Your task to perform on an android device: create a new album in the google photos Image 0: 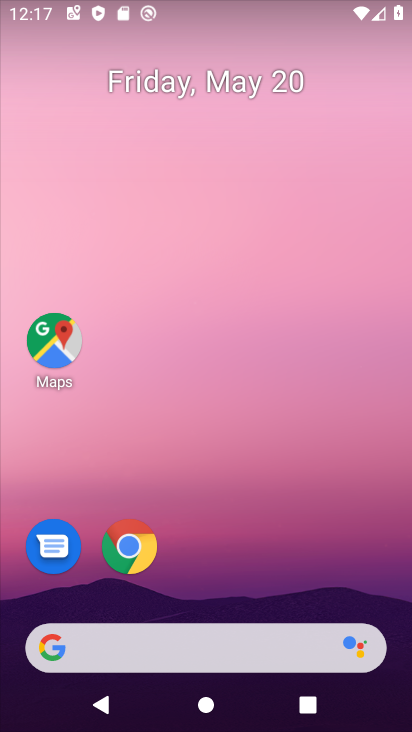
Step 0: drag from (267, 525) to (255, 69)
Your task to perform on an android device: create a new album in the google photos Image 1: 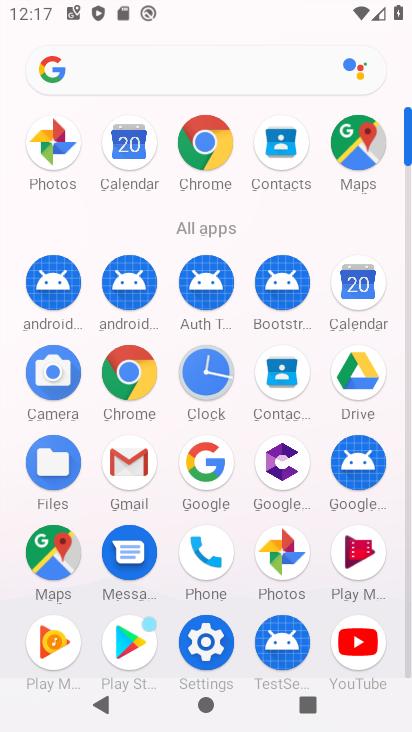
Step 1: click (48, 130)
Your task to perform on an android device: create a new album in the google photos Image 2: 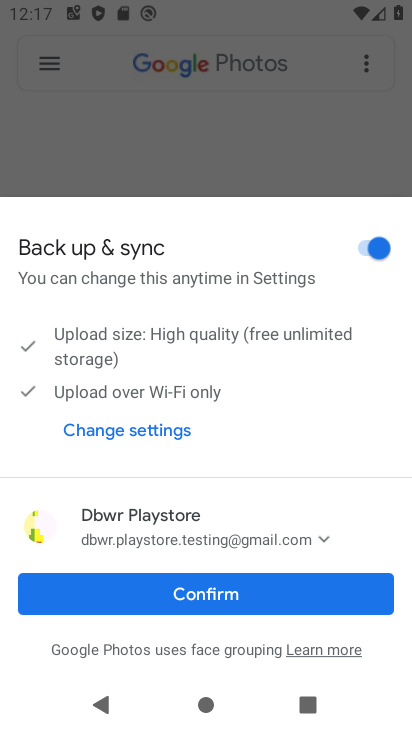
Step 2: click (208, 591)
Your task to perform on an android device: create a new album in the google photos Image 3: 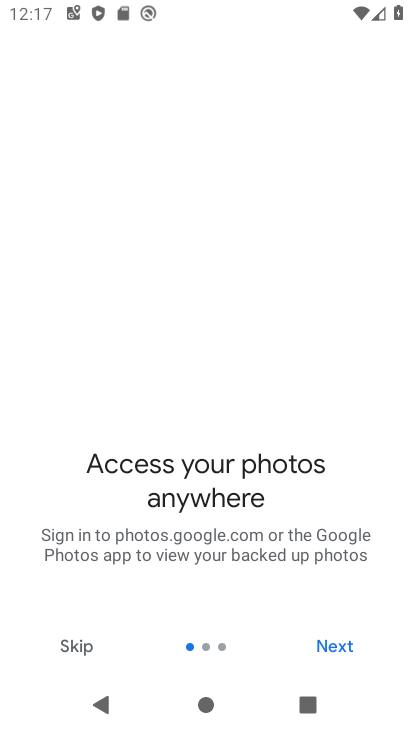
Step 3: click (159, 653)
Your task to perform on an android device: create a new album in the google photos Image 4: 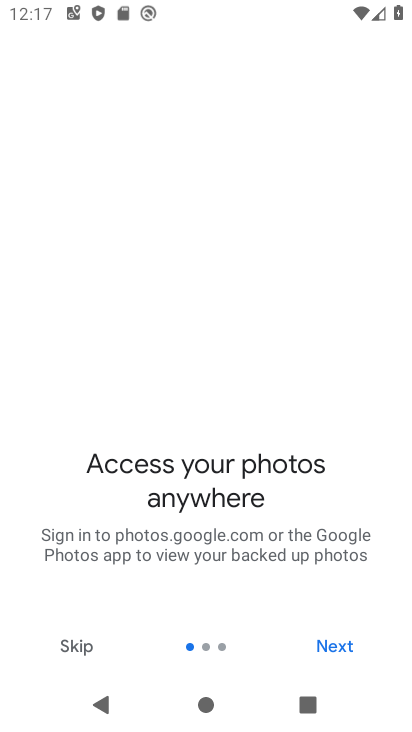
Step 4: click (339, 645)
Your task to perform on an android device: create a new album in the google photos Image 5: 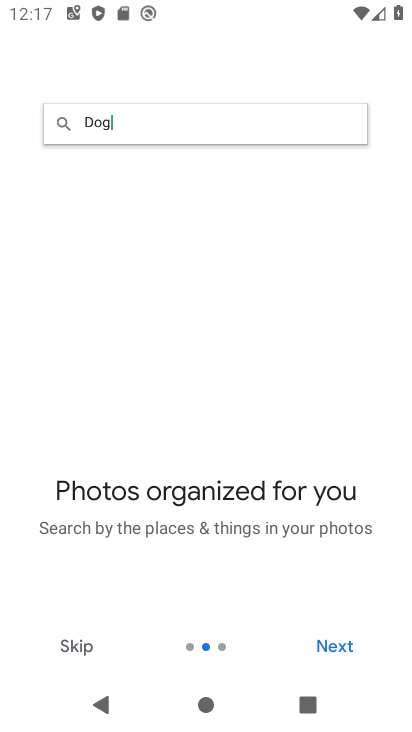
Step 5: click (339, 645)
Your task to perform on an android device: create a new album in the google photos Image 6: 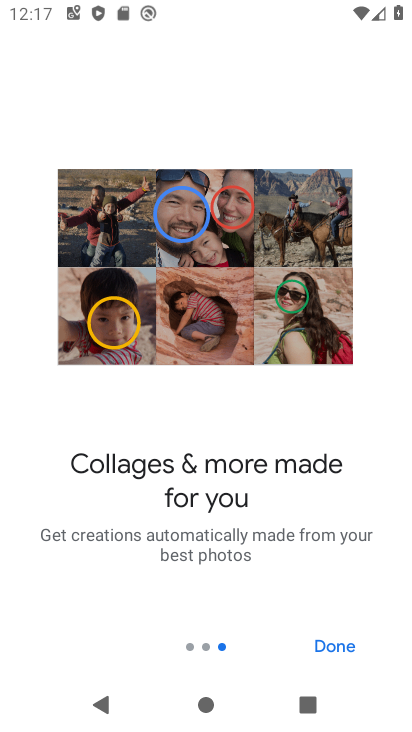
Step 6: click (339, 643)
Your task to perform on an android device: create a new album in the google photos Image 7: 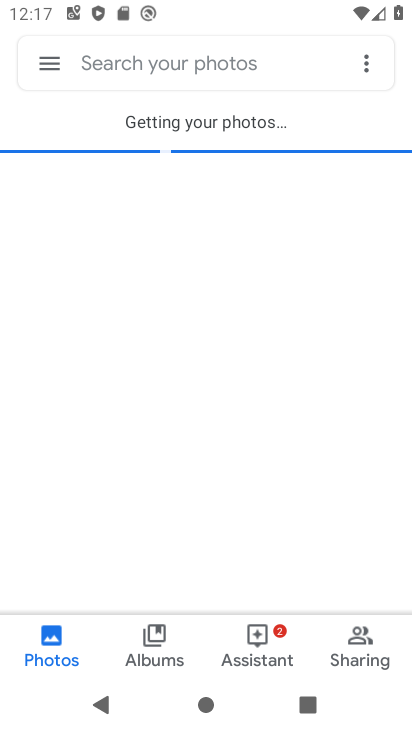
Step 7: click (155, 636)
Your task to perform on an android device: create a new album in the google photos Image 8: 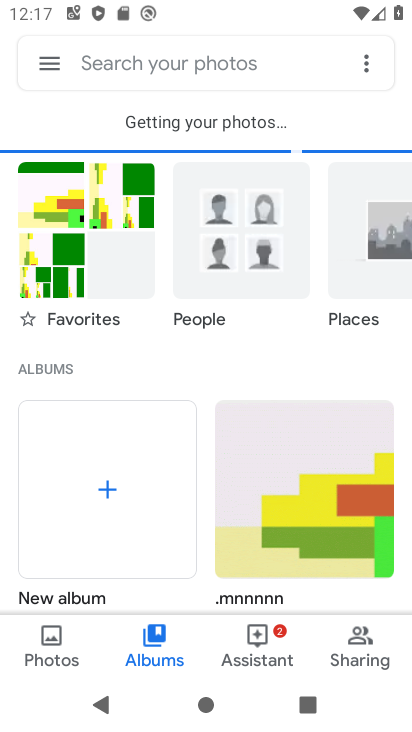
Step 8: click (105, 485)
Your task to perform on an android device: create a new album in the google photos Image 9: 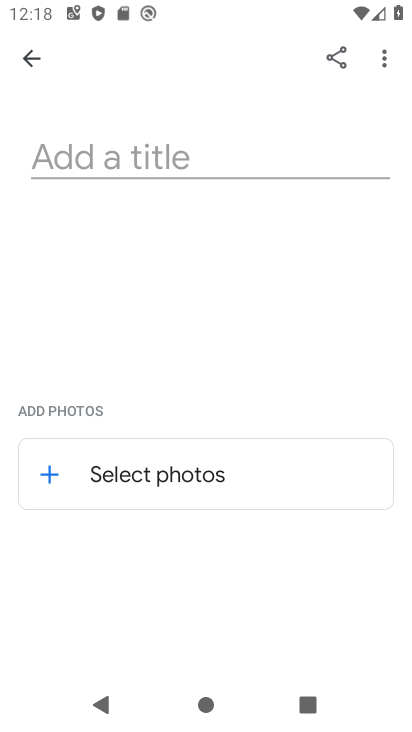
Step 9: click (135, 142)
Your task to perform on an android device: create a new album in the google photos Image 10: 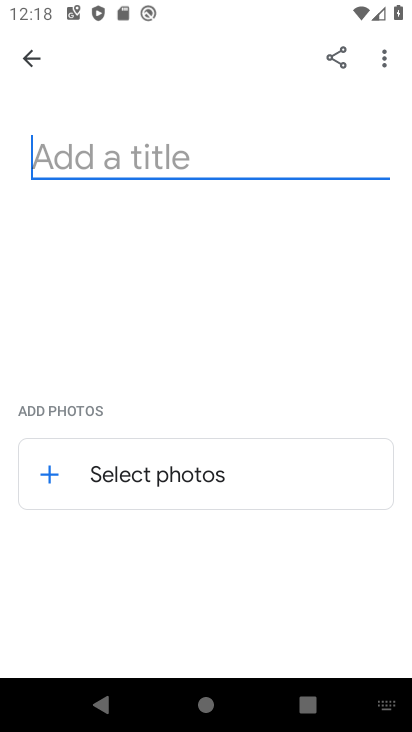
Step 10: type "Madurai Temple"
Your task to perform on an android device: create a new album in the google photos Image 11: 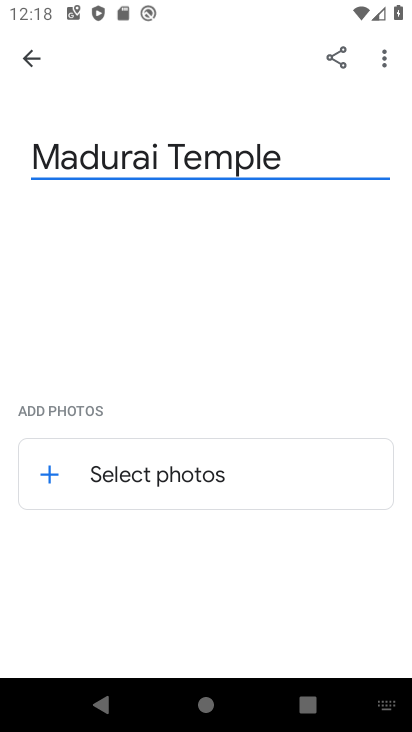
Step 11: click (48, 469)
Your task to perform on an android device: create a new album in the google photos Image 12: 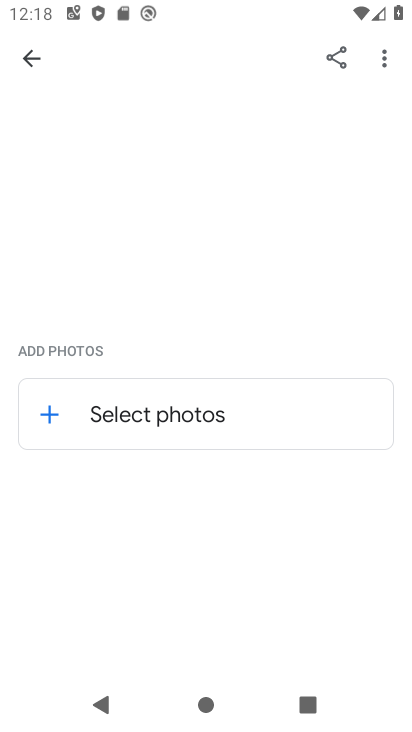
Step 12: click (51, 410)
Your task to perform on an android device: create a new album in the google photos Image 13: 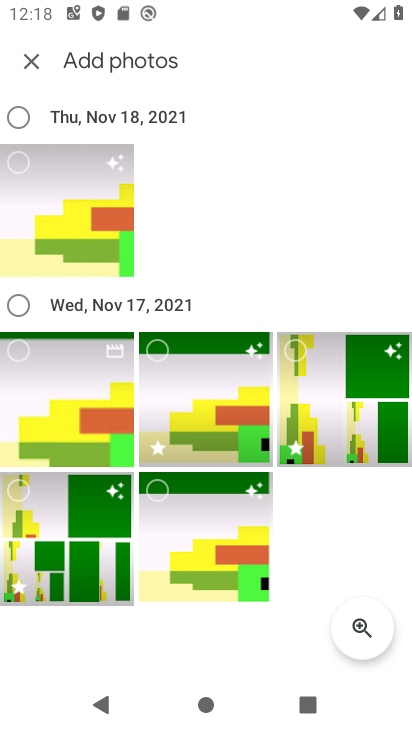
Step 13: click (158, 484)
Your task to perform on an android device: create a new album in the google photos Image 14: 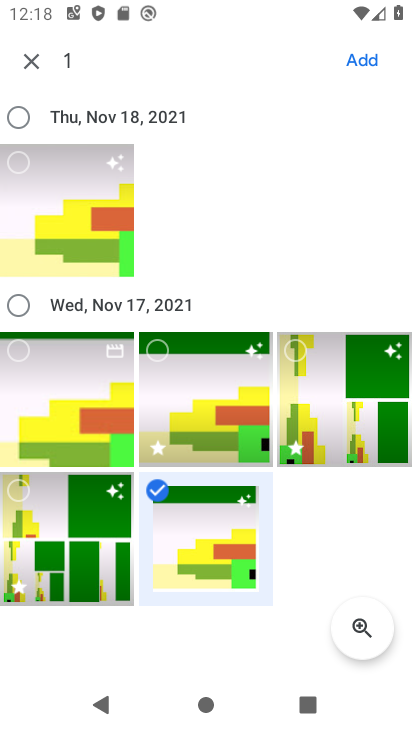
Step 14: click (356, 56)
Your task to perform on an android device: create a new album in the google photos Image 15: 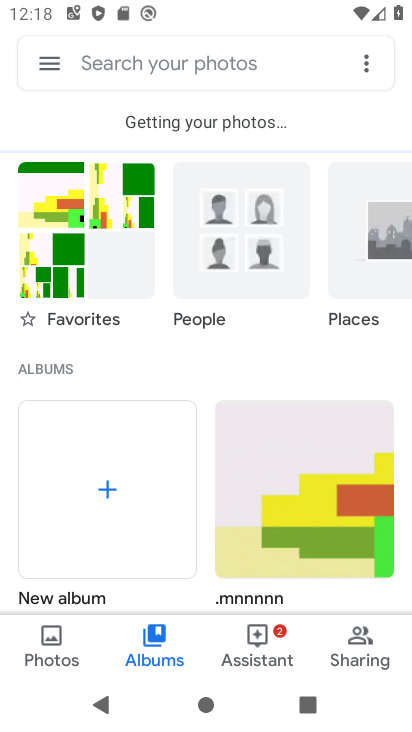
Step 15: task complete